Your task to perform on an android device: open app "YouTube Kids" Image 0: 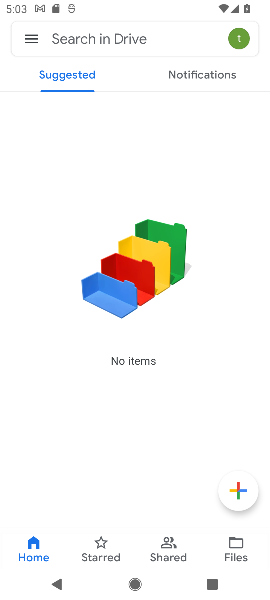
Step 0: press home button
Your task to perform on an android device: open app "YouTube Kids" Image 1: 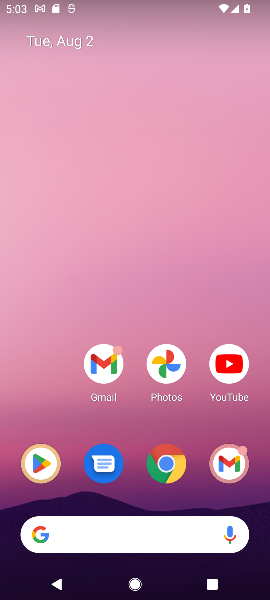
Step 1: click (43, 462)
Your task to perform on an android device: open app "YouTube Kids" Image 2: 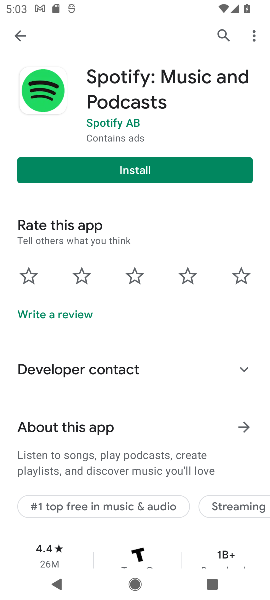
Step 2: click (222, 35)
Your task to perform on an android device: open app "YouTube Kids" Image 3: 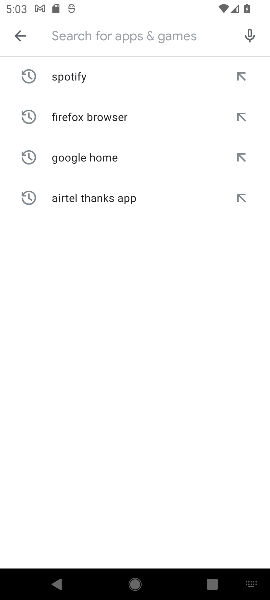
Step 3: type "YouTube Kids"
Your task to perform on an android device: open app "YouTube Kids" Image 4: 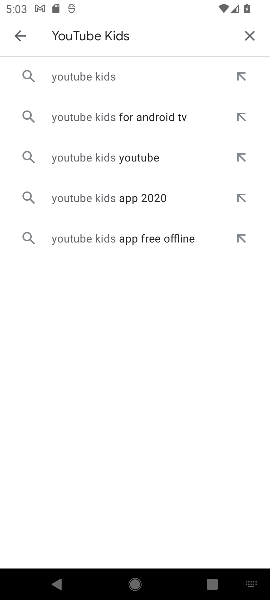
Step 4: click (107, 73)
Your task to perform on an android device: open app "YouTube Kids" Image 5: 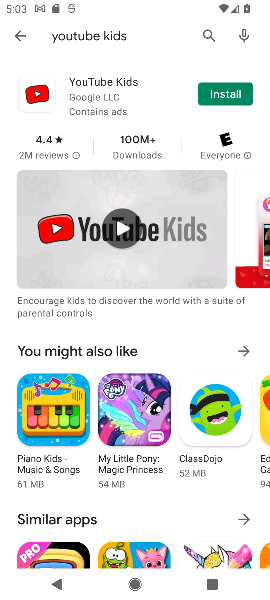
Step 5: task complete